Your task to perform on an android device: open a bookmark in the chrome app Image 0: 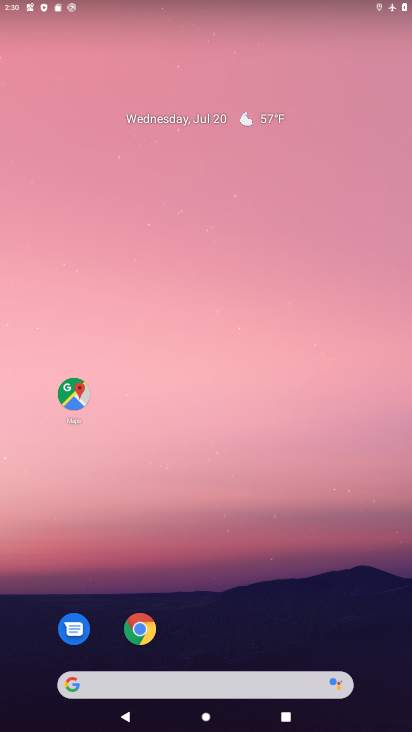
Step 0: click (154, 622)
Your task to perform on an android device: open a bookmark in the chrome app Image 1: 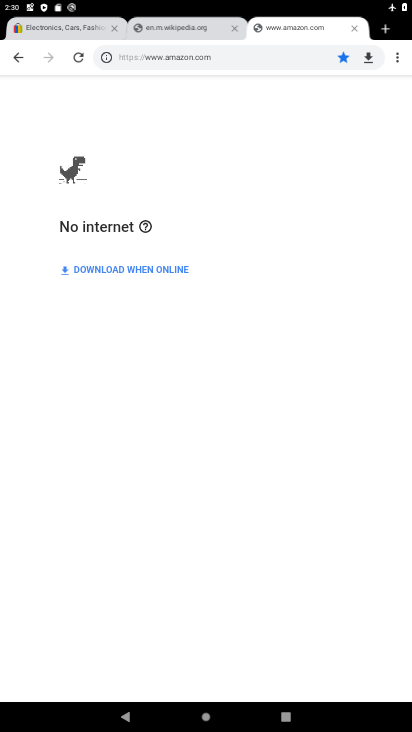
Step 1: click (397, 50)
Your task to perform on an android device: open a bookmark in the chrome app Image 2: 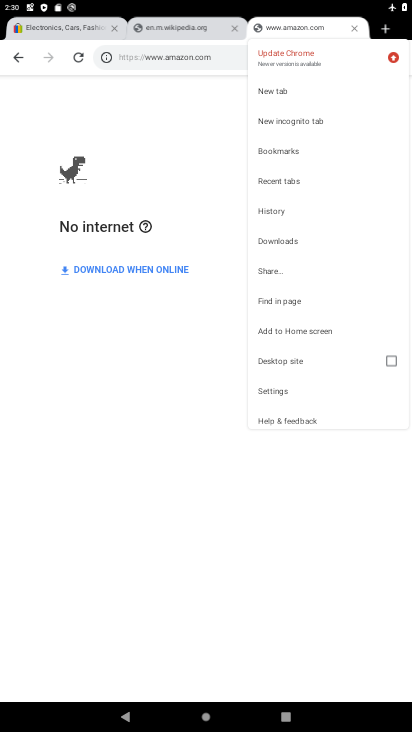
Step 2: click (302, 156)
Your task to perform on an android device: open a bookmark in the chrome app Image 3: 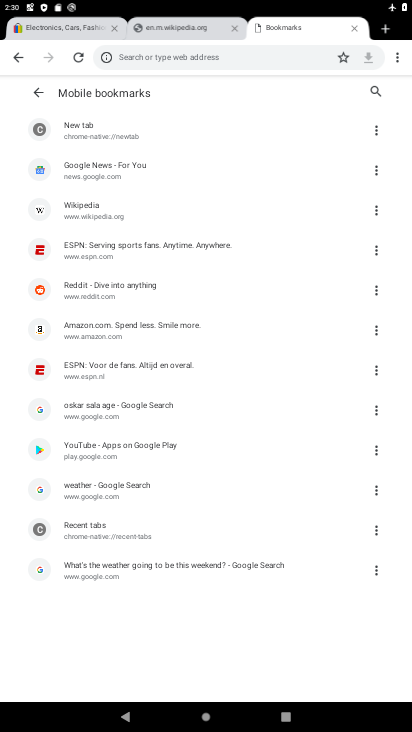
Step 3: click (138, 261)
Your task to perform on an android device: open a bookmark in the chrome app Image 4: 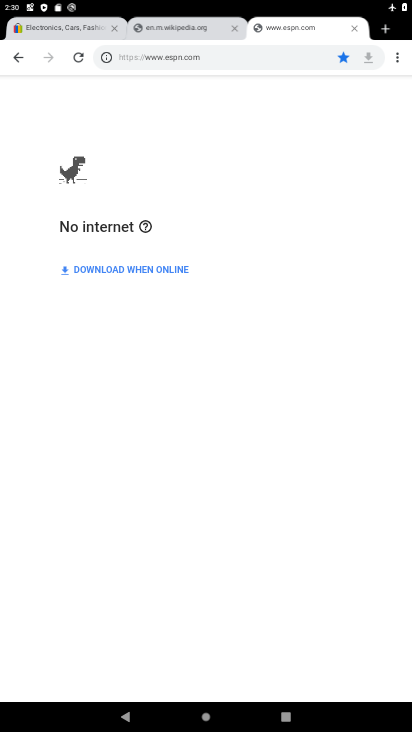
Step 4: task complete